Your task to perform on an android device: Open settings on Google Maps Image 0: 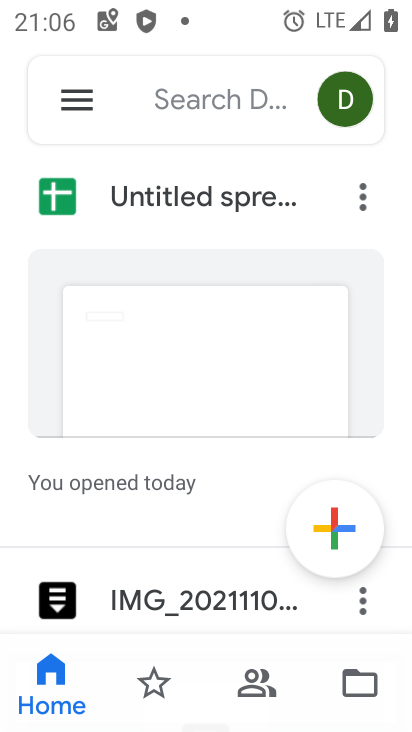
Step 0: press home button
Your task to perform on an android device: Open settings on Google Maps Image 1: 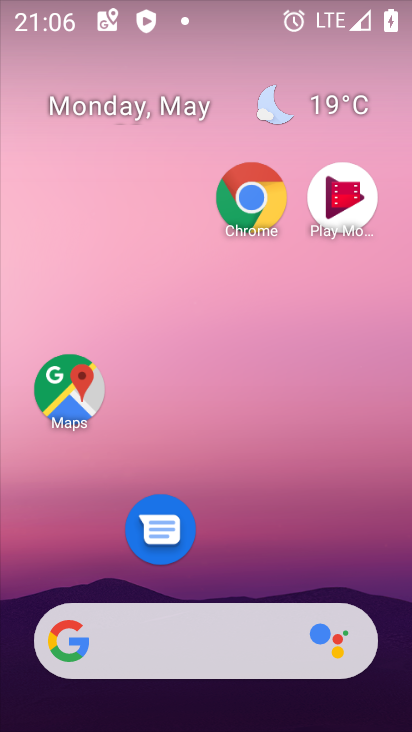
Step 1: click (64, 383)
Your task to perform on an android device: Open settings on Google Maps Image 2: 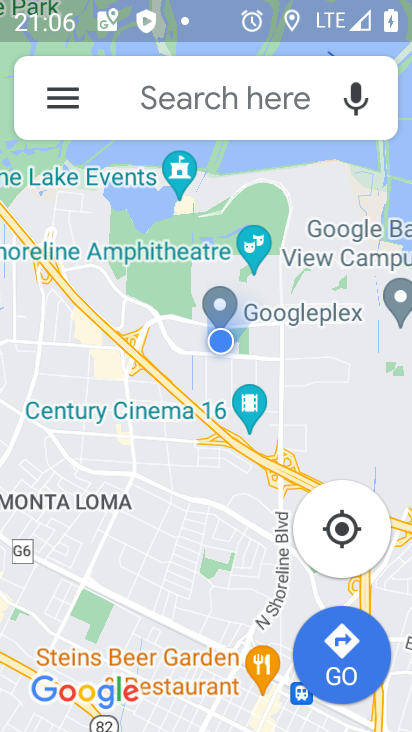
Step 2: click (61, 88)
Your task to perform on an android device: Open settings on Google Maps Image 3: 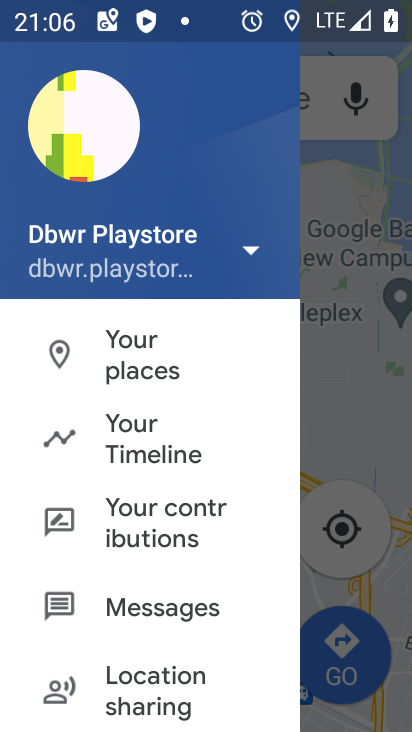
Step 3: drag from (135, 711) to (135, 471)
Your task to perform on an android device: Open settings on Google Maps Image 4: 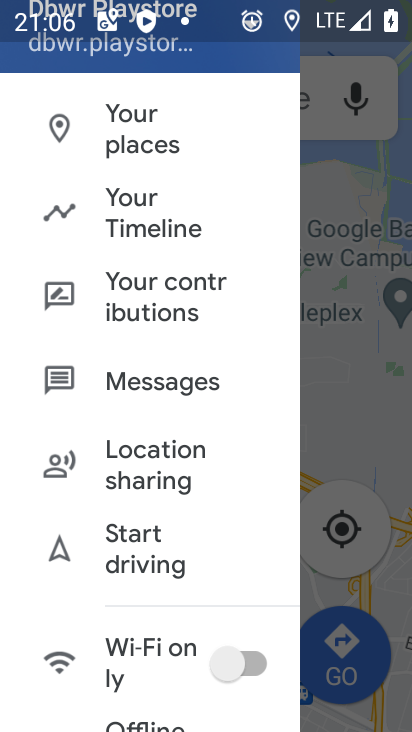
Step 4: drag from (136, 583) to (141, 258)
Your task to perform on an android device: Open settings on Google Maps Image 5: 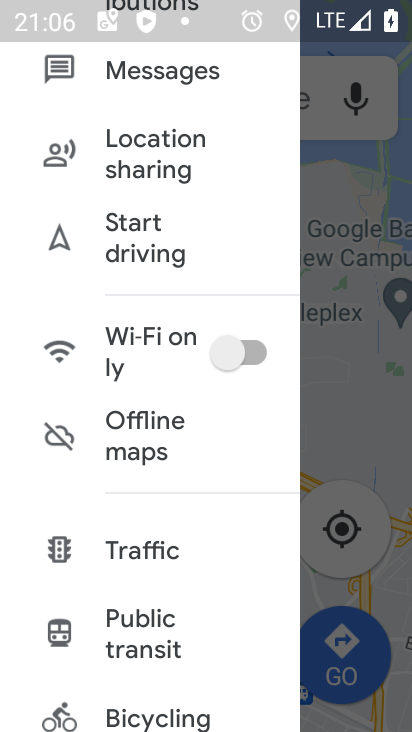
Step 5: drag from (159, 606) to (161, 45)
Your task to perform on an android device: Open settings on Google Maps Image 6: 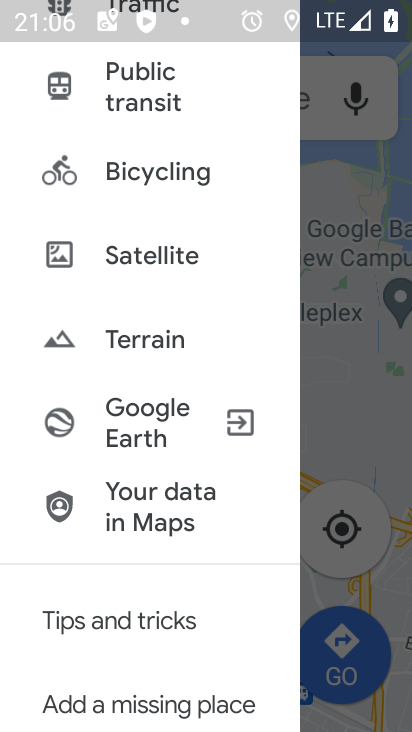
Step 6: drag from (143, 630) to (153, 305)
Your task to perform on an android device: Open settings on Google Maps Image 7: 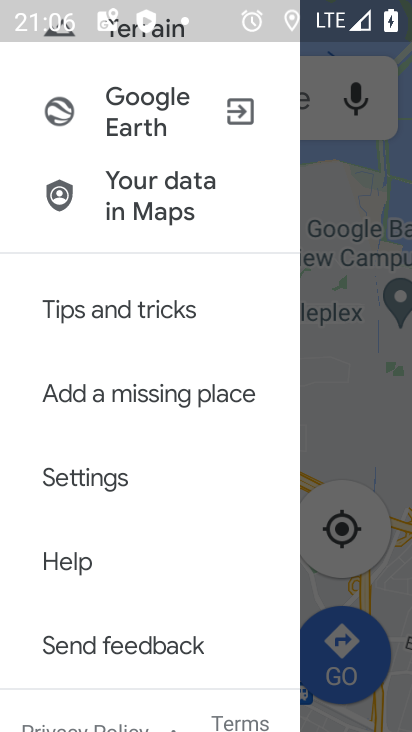
Step 7: click (122, 483)
Your task to perform on an android device: Open settings on Google Maps Image 8: 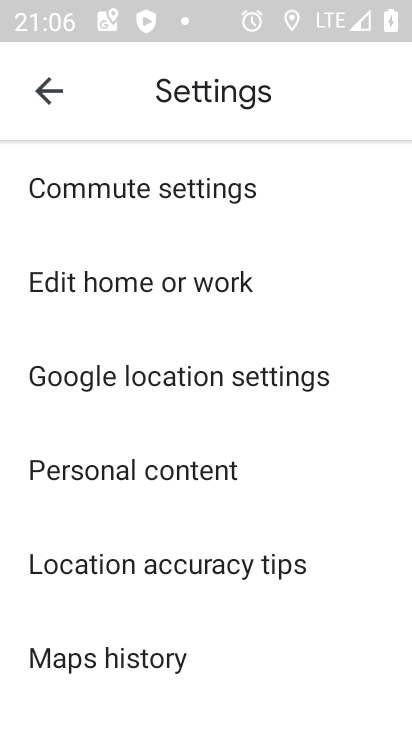
Step 8: task complete